Your task to perform on an android device: change alarm snooze length Image 0: 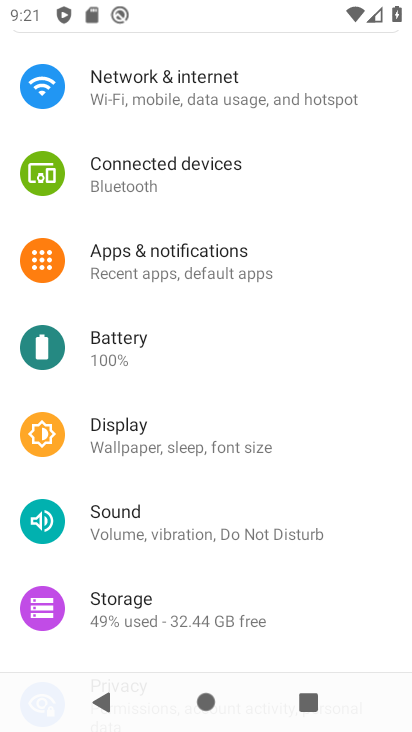
Step 0: press home button
Your task to perform on an android device: change alarm snooze length Image 1: 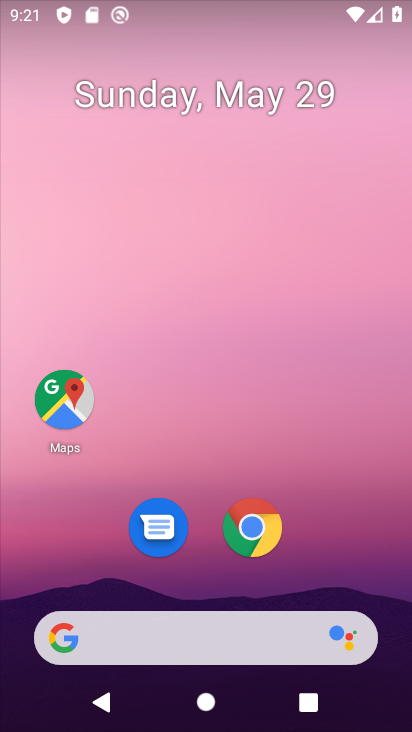
Step 1: drag from (186, 637) to (320, 130)
Your task to perform on an android device: change alarm snooze length Image 2: 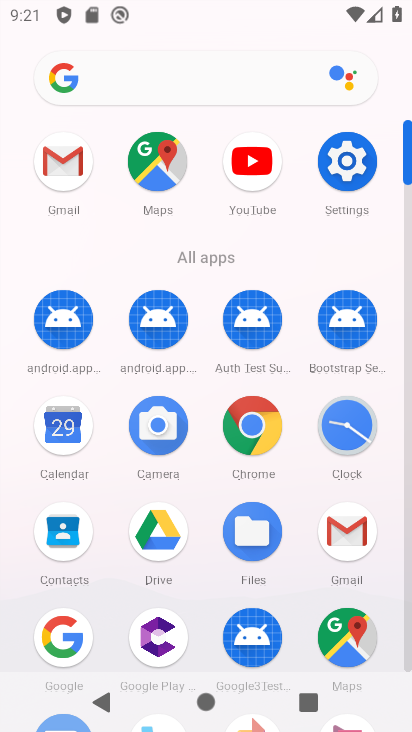
Step 2: click (343, 433)
Your task to perform on an android device: change alarm snooze length Image 3: 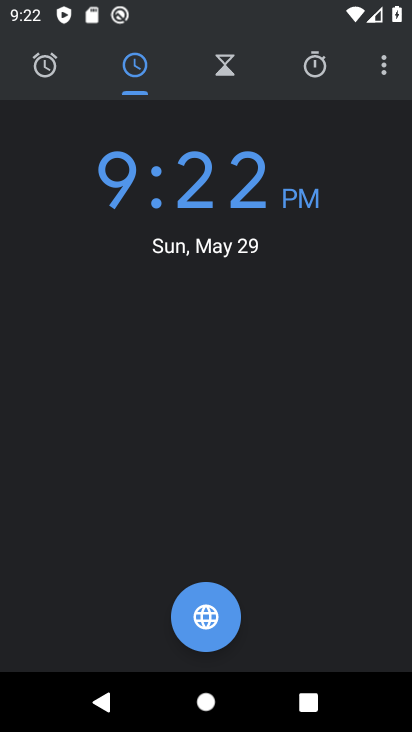
Step 3: click (383, 68)
Your task to perform on an android device: change alarm snooze length Image 4: 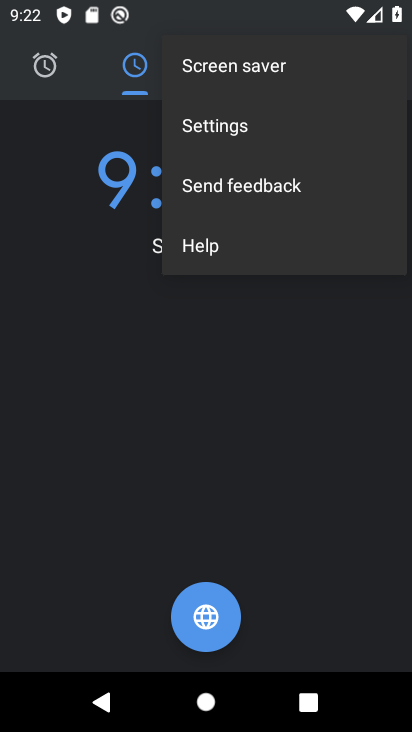
Step 4: click (216, 132)
Your task to perform on an android device: change alarm snooze length Image 5: 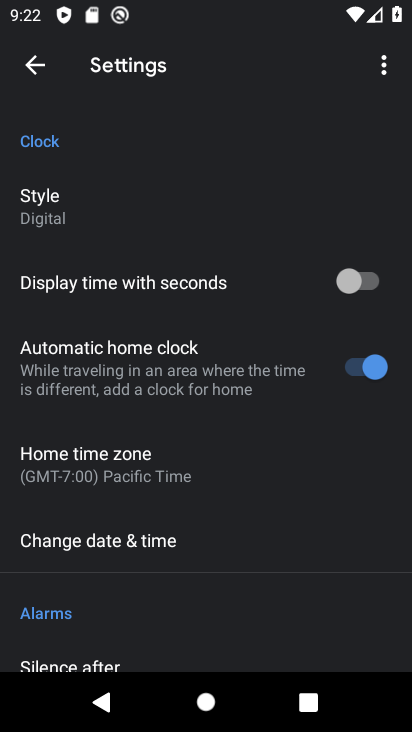
Step 5: drag from (189, 556) to (337, 110)
Your task to perform on an android device: change alarm snooze length Image 6: 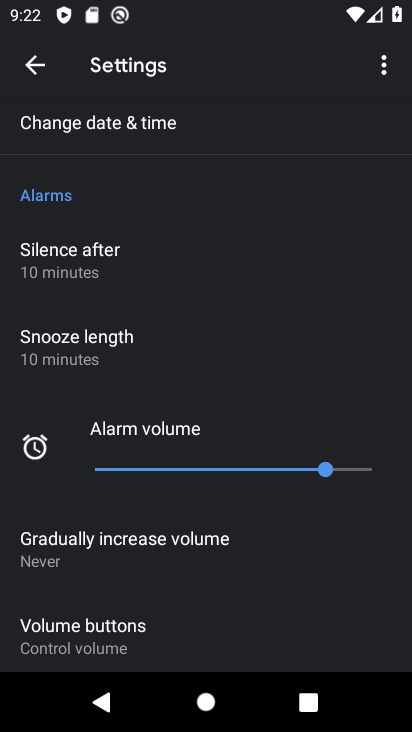
Step 6: click (79, 353)
Your task to perform on an android device: change alarm snooze length Image 7: 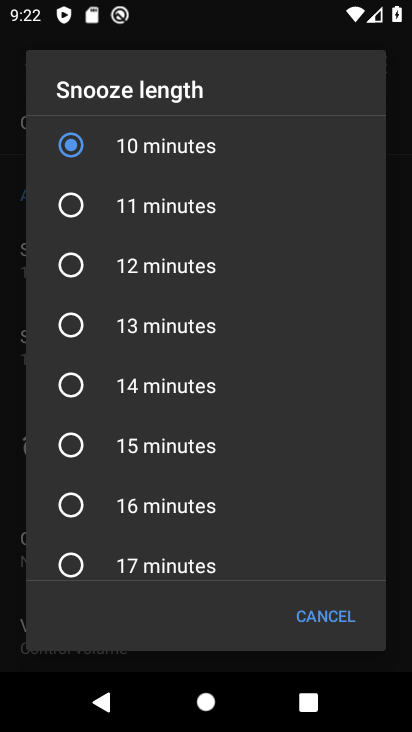
Step 7: click (67, 442)
Your task to perform on an android device: change alarm snooze length Image 8: 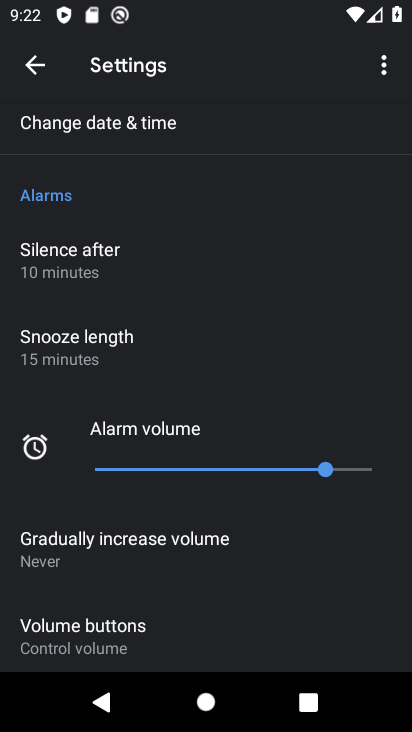
Step 8: task complete